Your task to perform on an android device: Go to network settings Image 0: 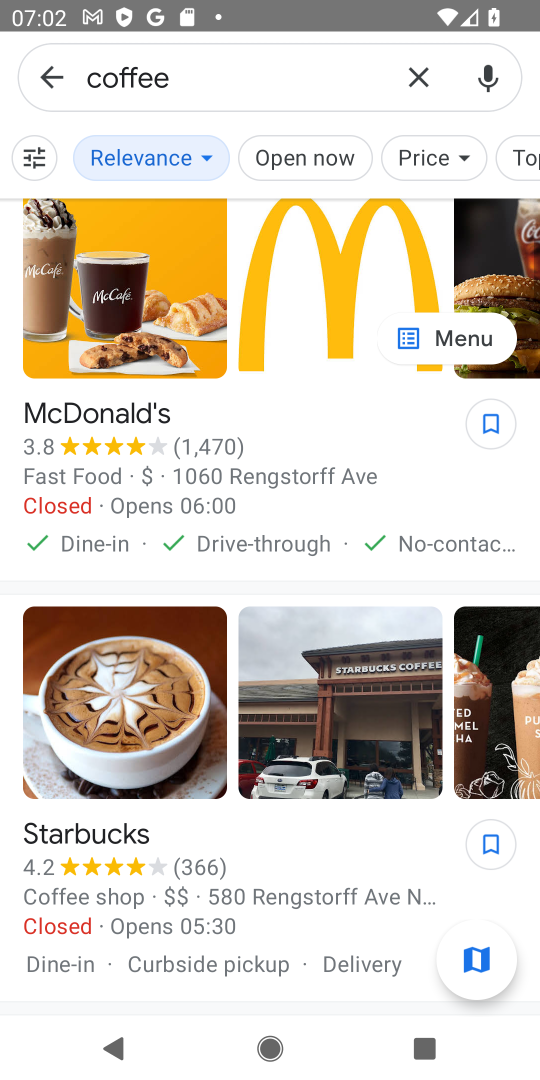
Step 0: press home button
Your task to perform on an android device: Go to network settings Image 1: 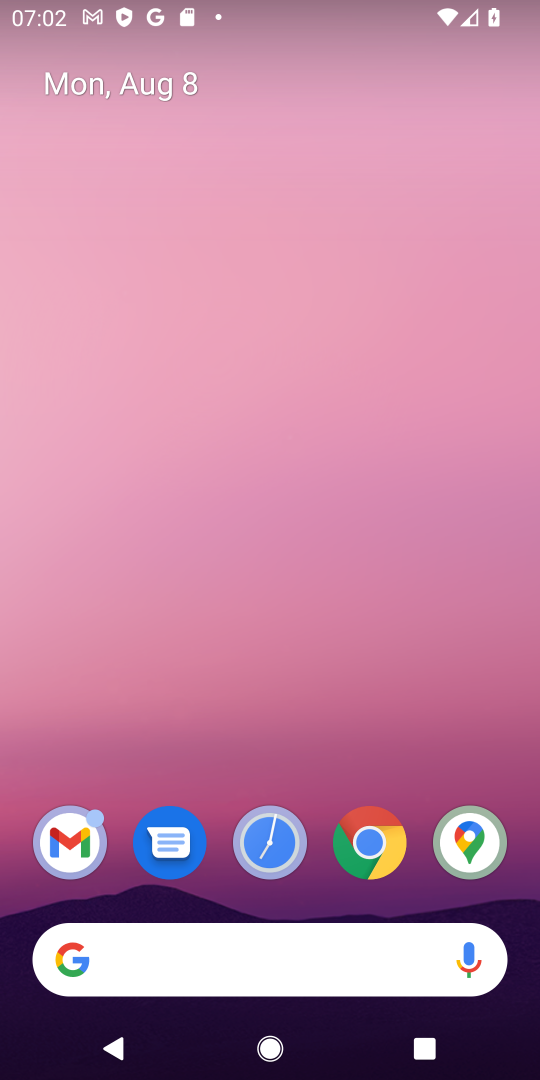
Step 1: drag from (321, 799) to (288, 60)
Your task to perform on an android device: Go to network settings Image 2: 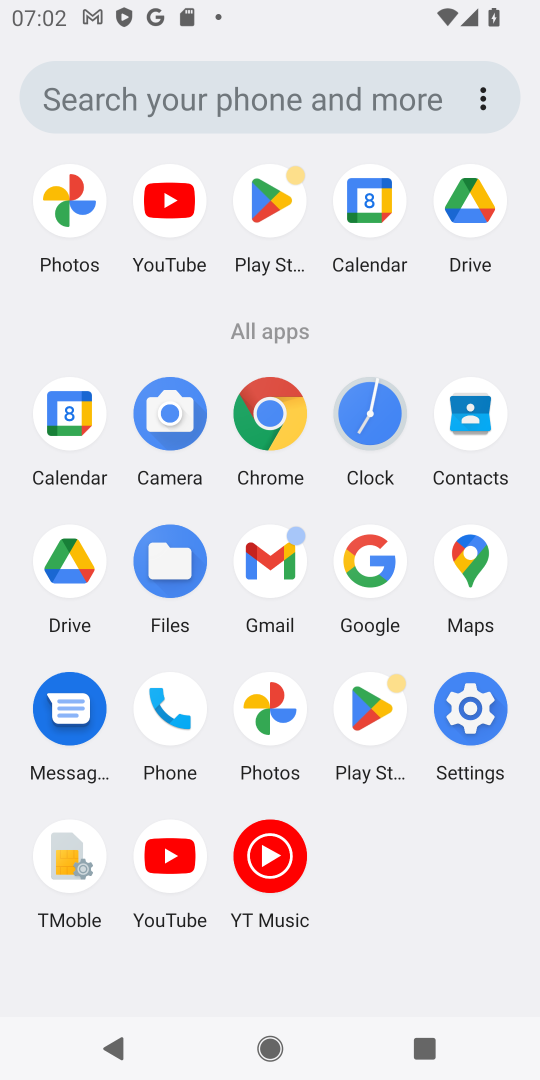
Step 2: click (474, 712)
Your task to perform on an android device: Go to network settings Image 3: 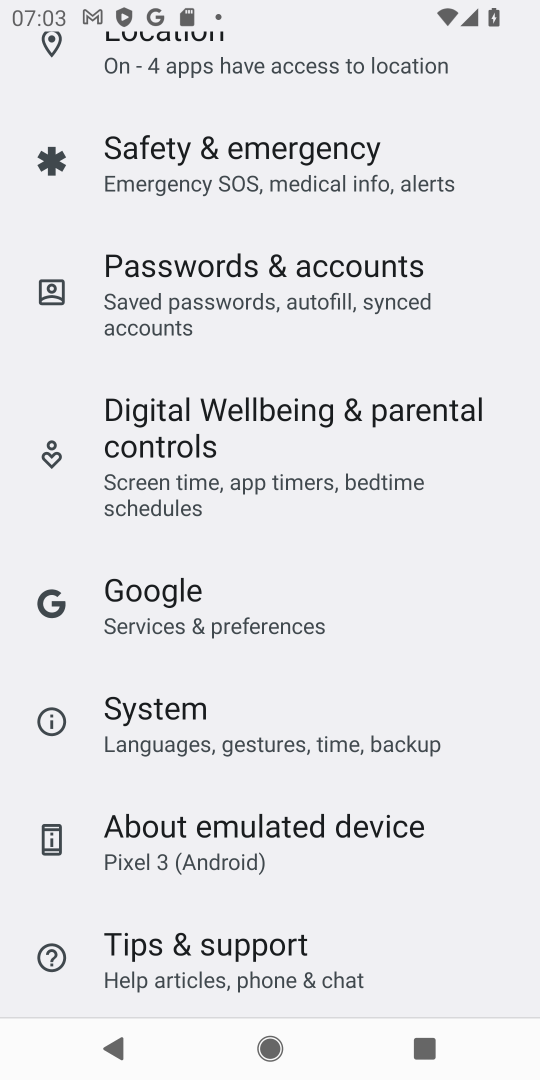
Step 3: drag from (353, 270) to (306, 1017)
Your task to perform on an android device: Go to network settings Image 4: 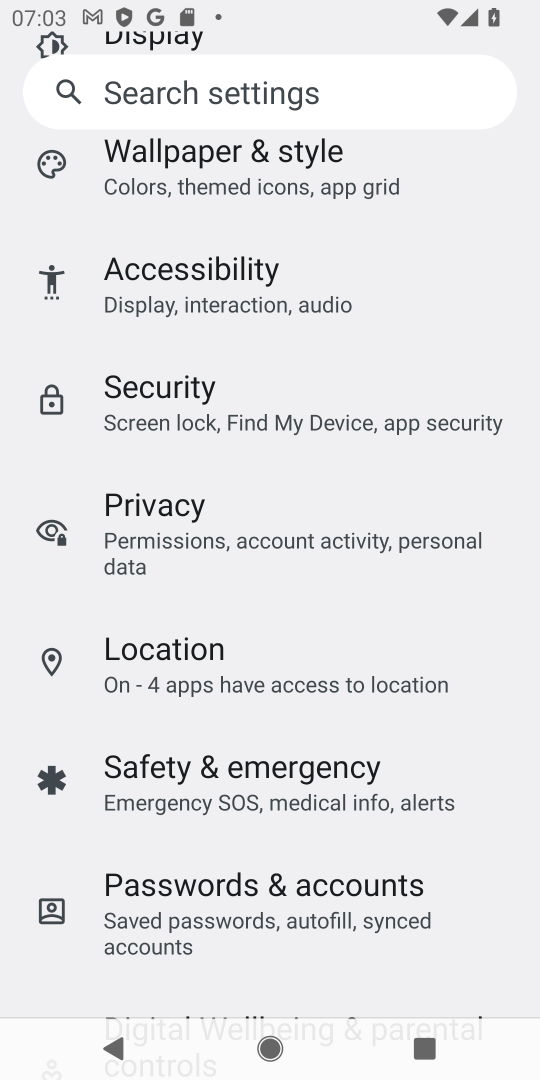
Step 4: drag from (298, 207) to (206, 817)
Your task to perform on an android device: Go to network settings Image 5: 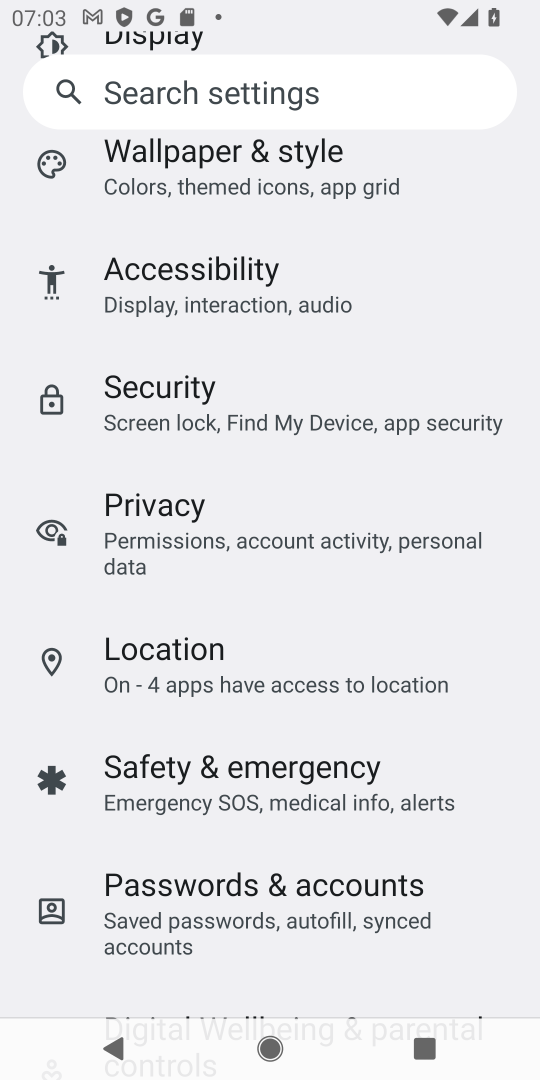
Step 5: drag from (227, 231) to (149, 770)
Your task to perform on an android device: Go to network settings Image 6: 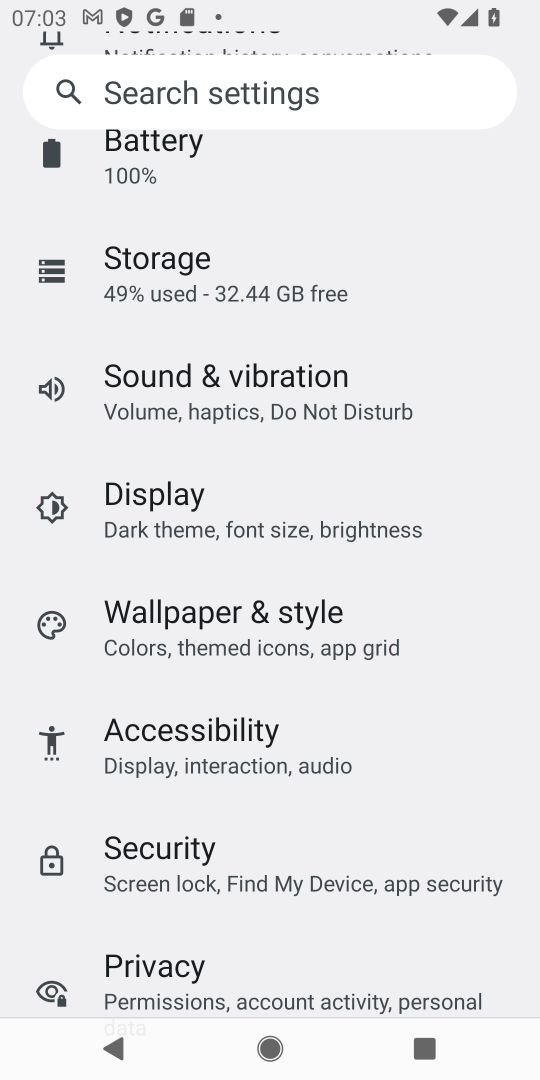
Step 6: drag from (196, 310) to (119, 954)
Your task to perform on an android device: Go to network settings Image 7: 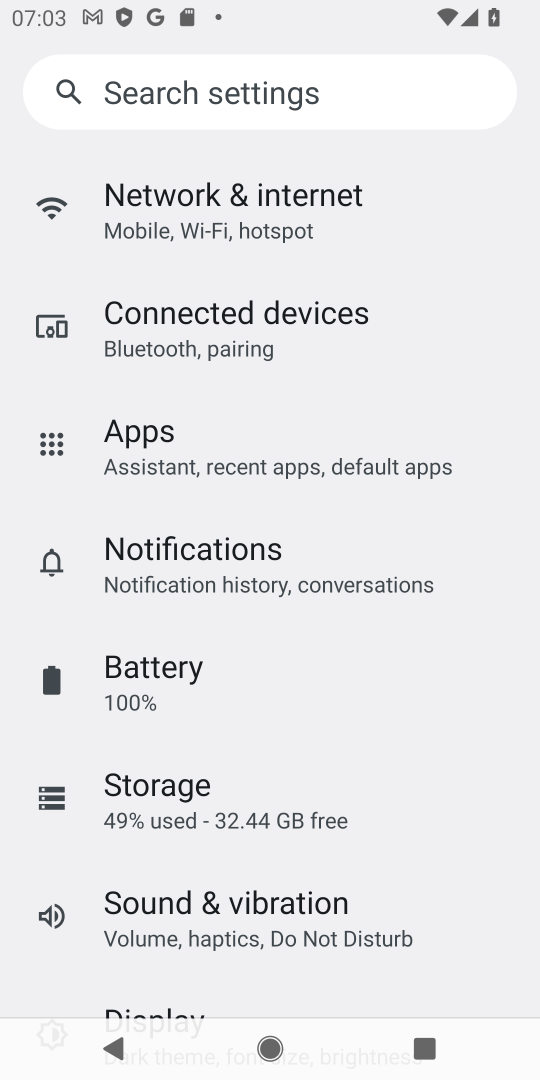
Step 7: click (206, 196)
Your task to perform on an android device: Go to network settings Image 8: 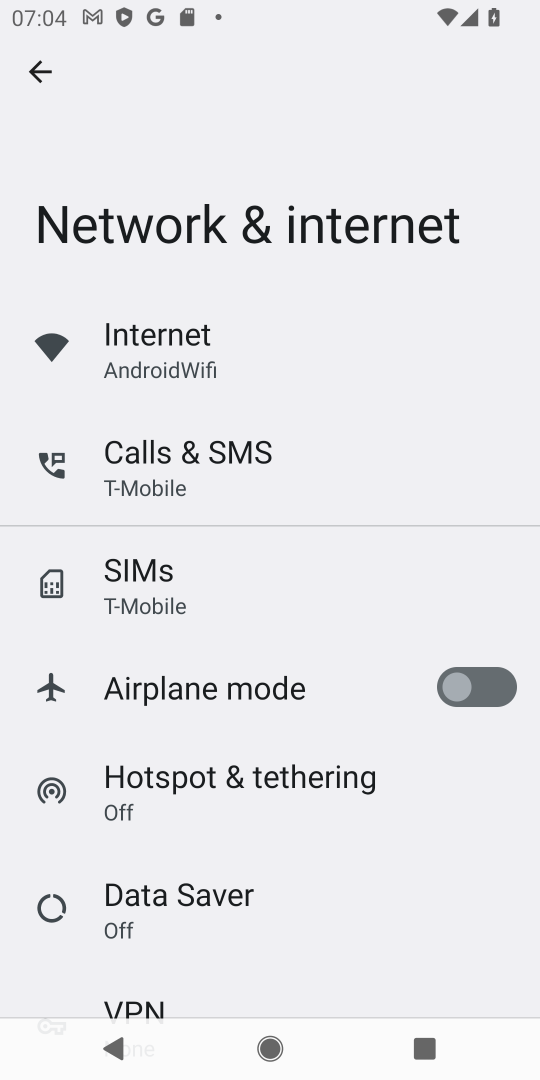
Step 8: press home button
Your task to perform on an android device: Go to network settings Image 9: 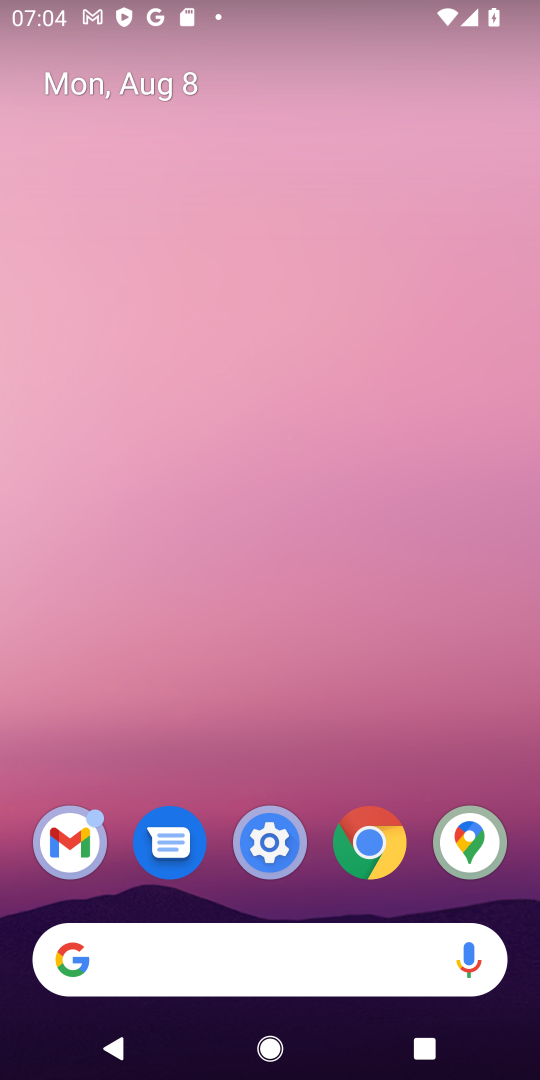
Step 9: click (258, 828)
Your task to perform on an android device: Go to network settings Image 10: 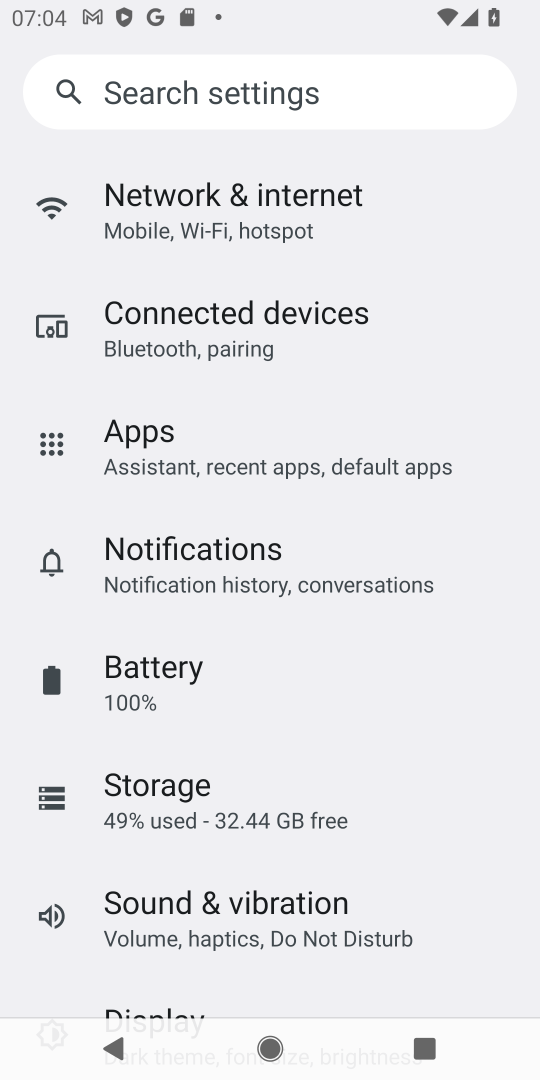
Step 10: click (332, 195)
Your task to perform on an android device: Go to network settings Image 11: 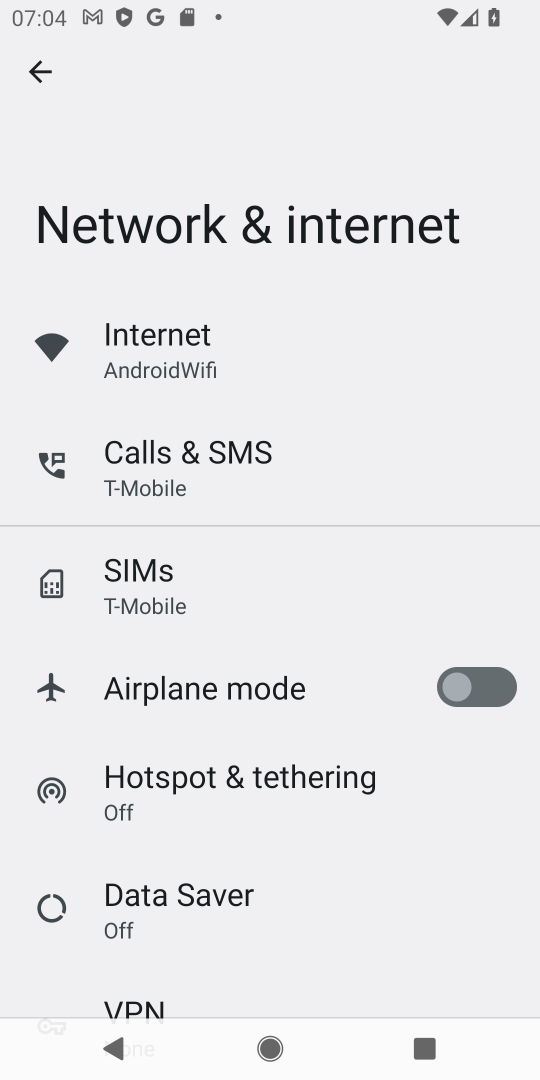
Step 11: drag from (261, 907) to (214, 330)
Your task to perform on an android device: Go to network settings Image 12: 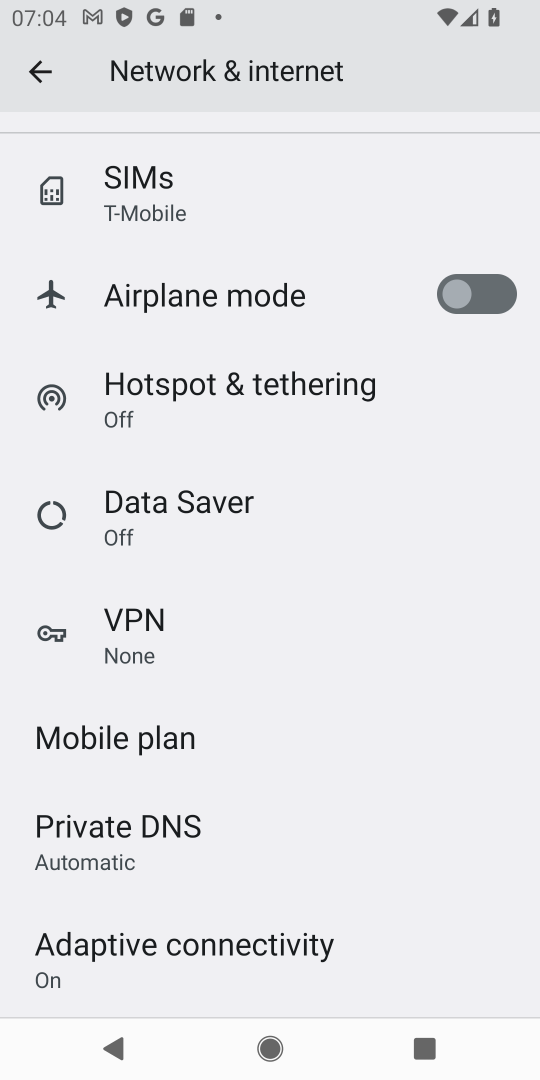
Step 12: drag from (263, 767) to (368, 211)
Your task to perform on an android device: Go to network settings Image 13: 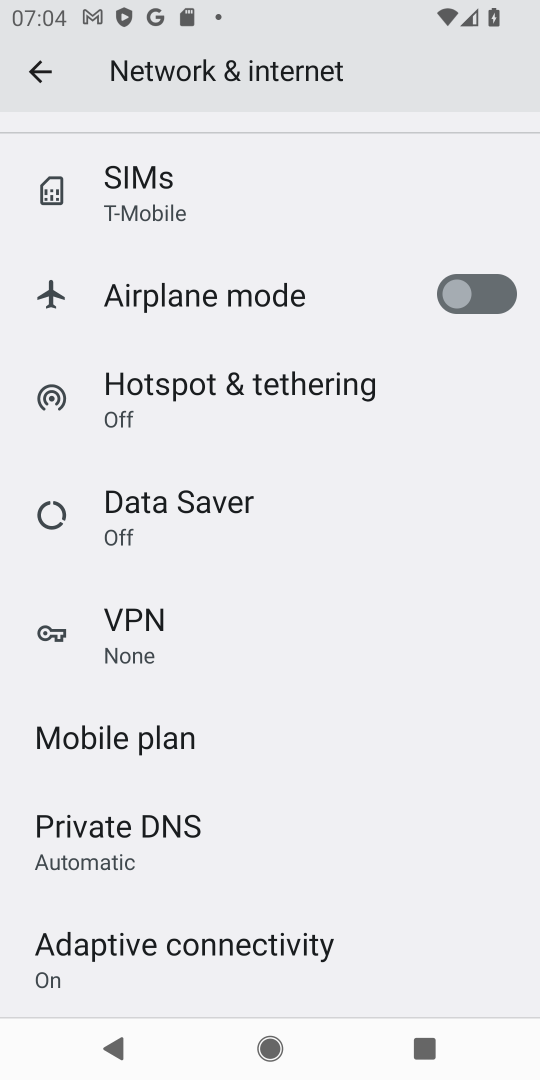
Step 13: drag from (370, 267) to (367, 1015)
Your task to perform on an android device: Go to network settings Image 14: 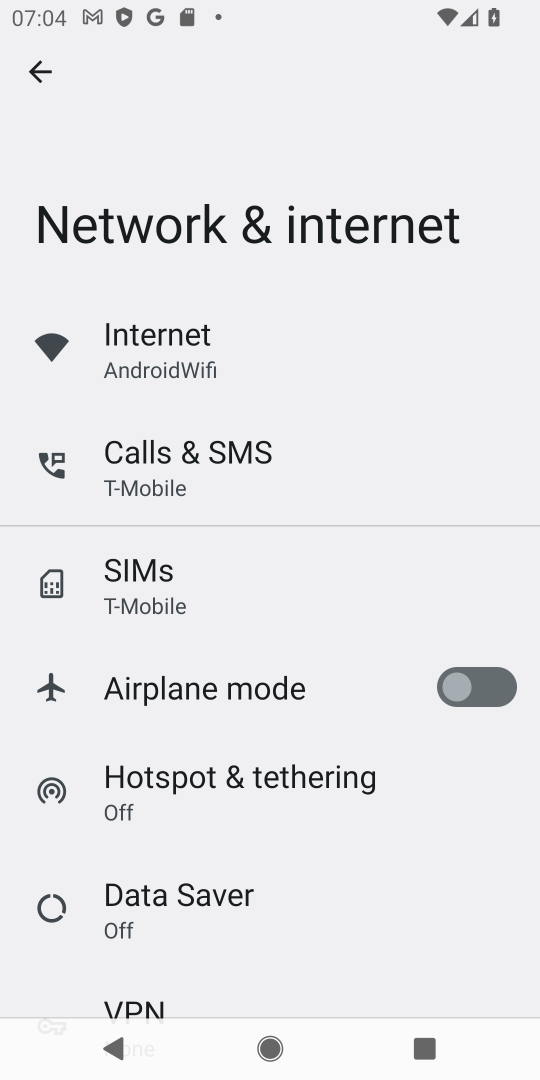
Step 14: click (183, 356)
Your task to perform on an android device: Go to network settings Image 15: 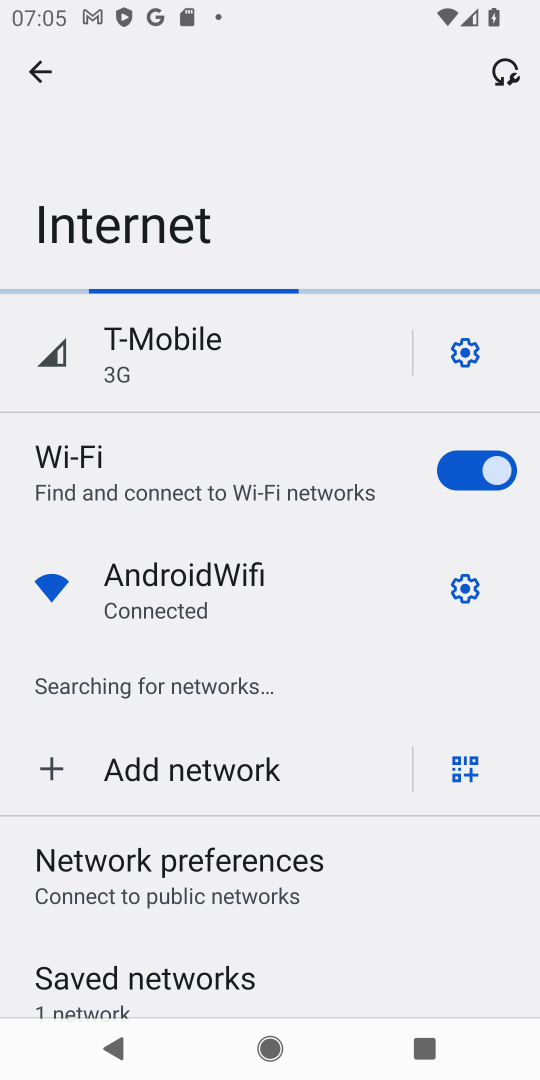
Step 15: click (31, 69)
Your task to perform on an android device: Go to network settings Image 16: 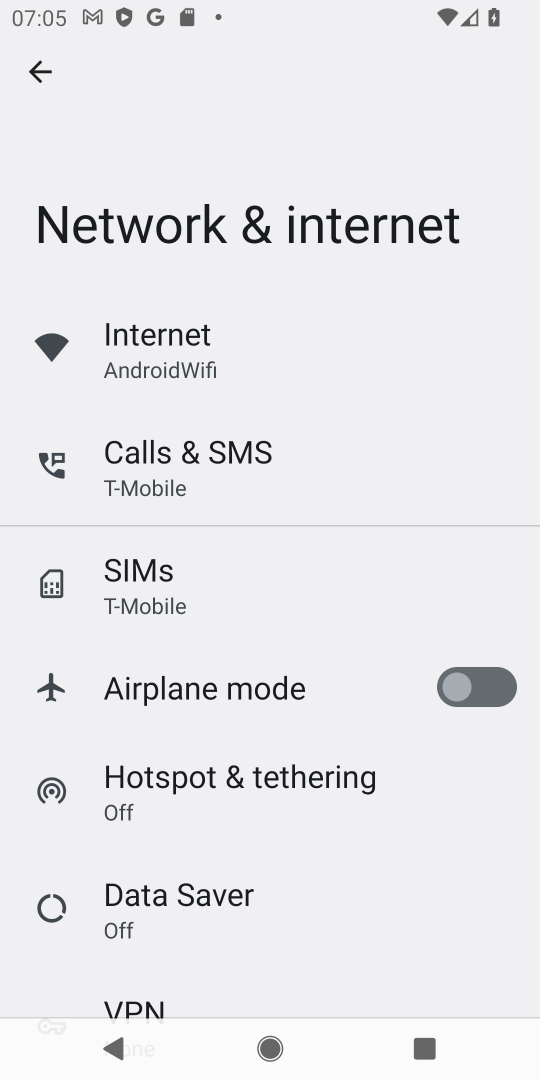
Step 16: task complete